Your task to perform on an android device: Go to wifi settings Image 0: 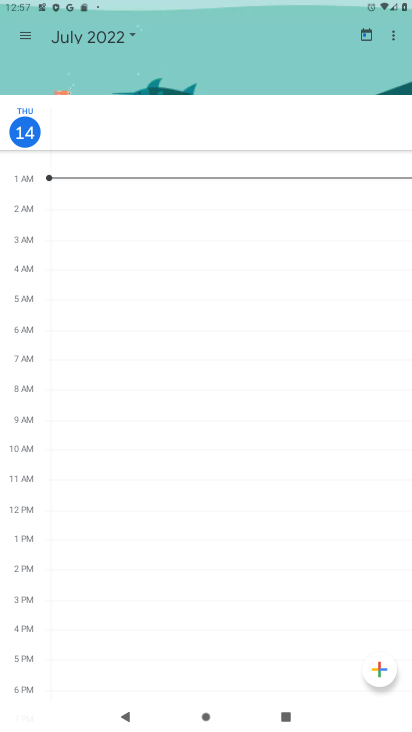
Step 0: drag from (186, 2) to (169, 425)
Your task to perform on an android device: Go to wifi settings Image 1: 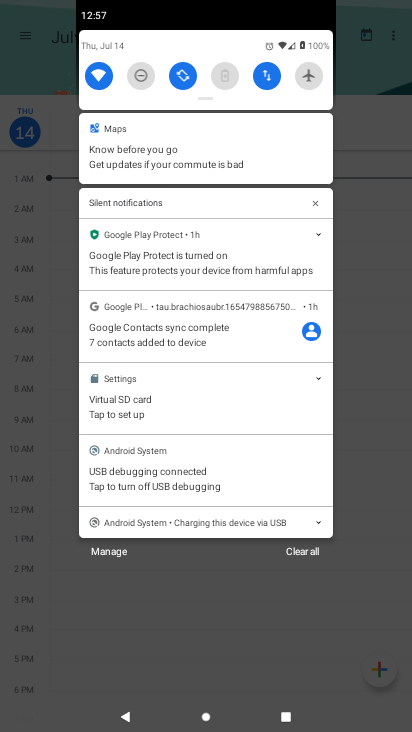
Step 1: click (94, 74)
Your task to perform on an android device: Go to wifi settings Image 2: 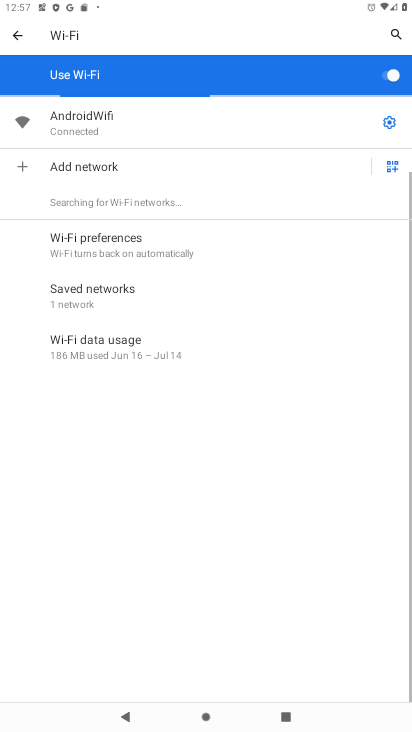
Step 2: task complete